Your task to perform on an android device: Check the news Image 0: 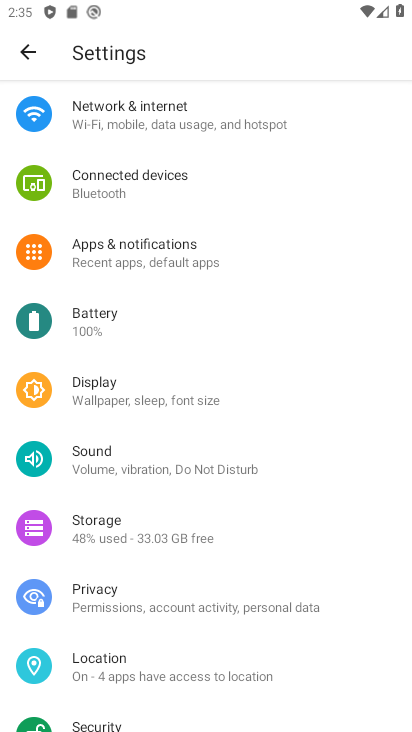
Step 0: press home button
Your task to perform on an android device: Check the news Image 1: 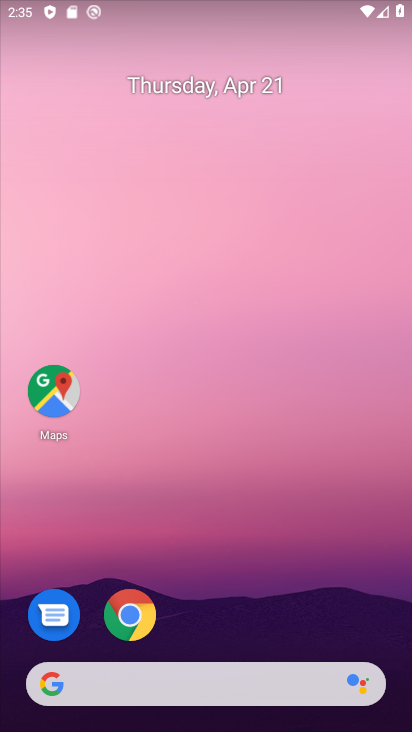
Step 1: click (155, 671)
Your task to perform on an android device: Check the news Image 2: 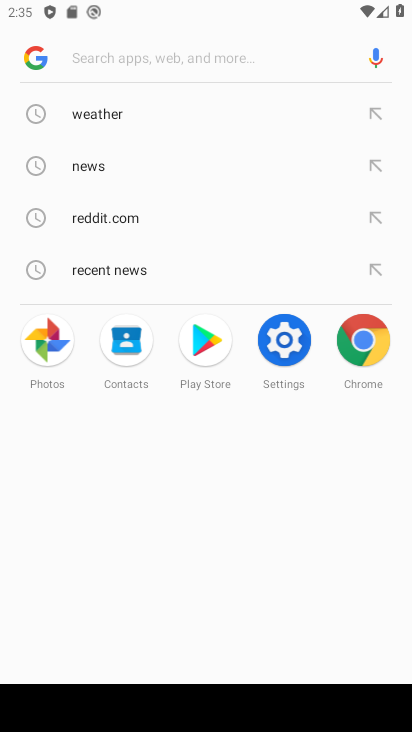
Step 2: click (36, 62)
Your task to perform on an android device: Check the news Image 3: 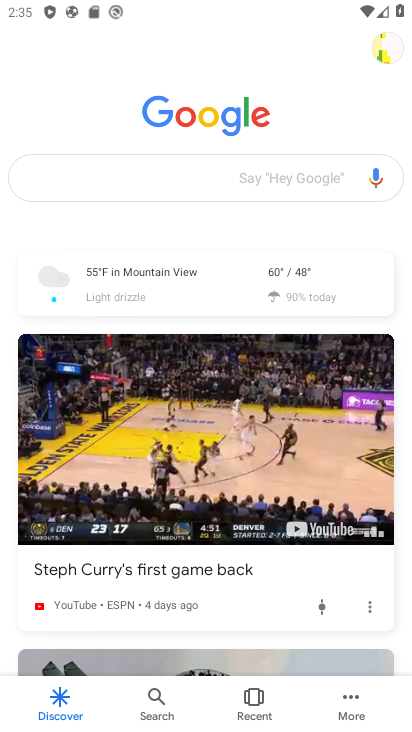
Step 3: task complete